Your task to perform on an android device: check android version Image 0: 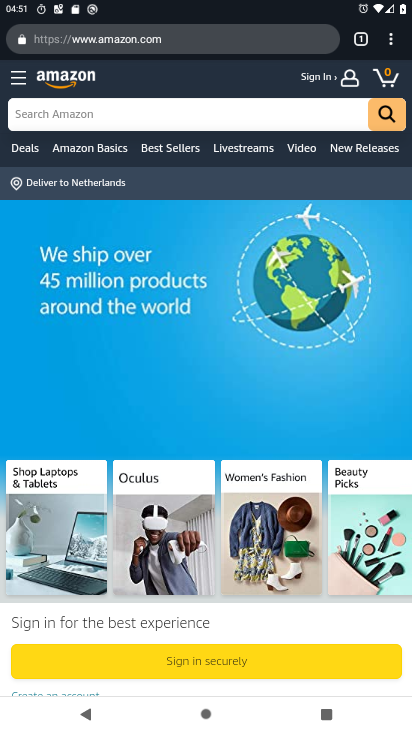
Step 0: press home button
Your task to perform on an android device: check android version Image 1: 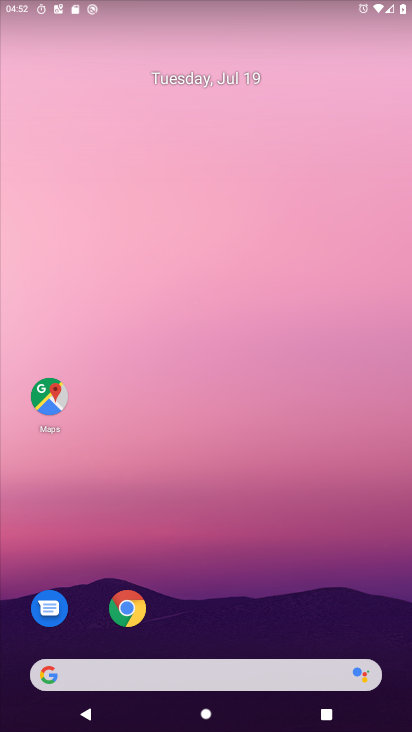
Step 1: drag from (210, 676) to (262, 217)
Your task to perform on an android device: check android version Image 2: 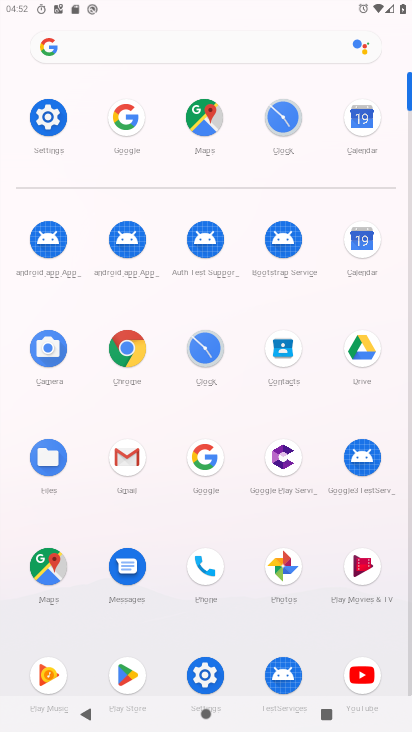
Step 2: click (47, 117)
Your task to perform on an android device: check android version Image 3: 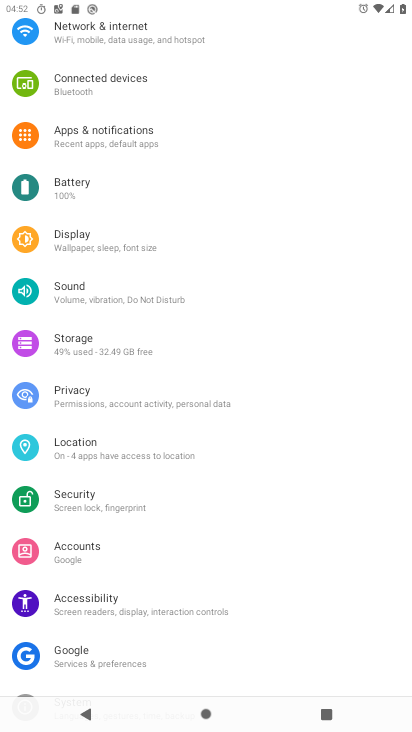
Step 3: drag from (139, 575) to (172, 369)
Your task to perform on an android device: check android version Image 4: 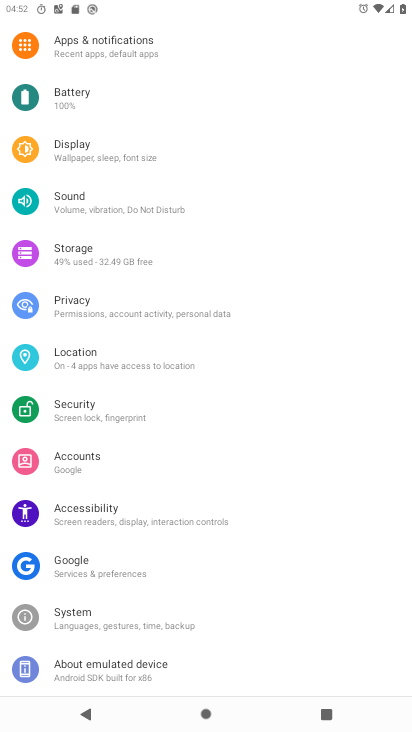
Step 4: click (80, 667)
Your task to perform on an android device: check android version Image 5: 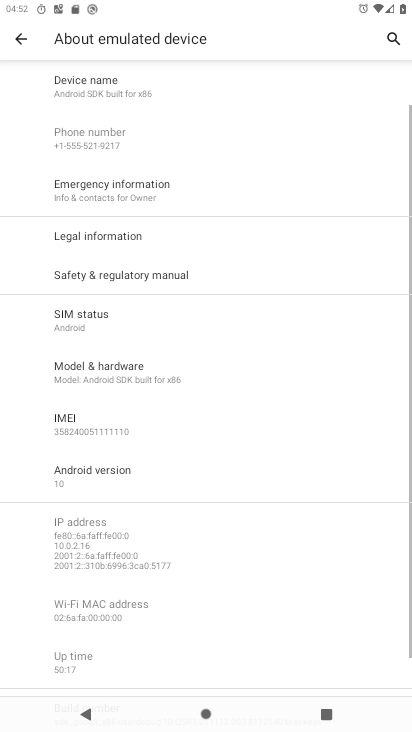
Step 5: click (109, 482)
Your task to perform on an android device: check android version Image 6: 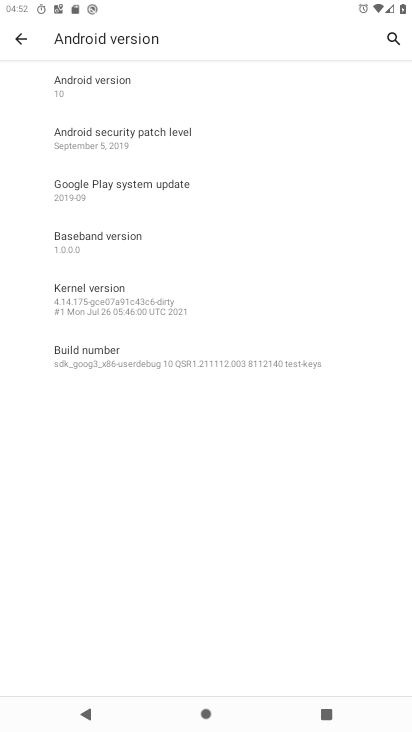
Step 6: task complete